Your task to perform on an android device: check google app version Image 0: 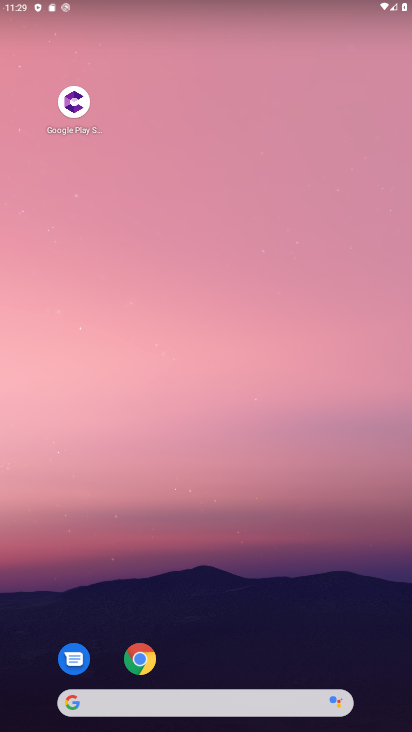
Step 0: drag from (208, 646) to (223, 32)
Your task to perform on an android device: check google app version Image 1: 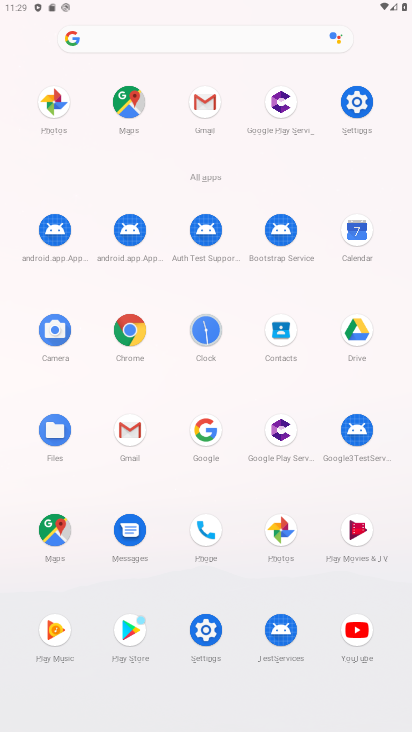
Step 1: click (73, 34)
Your task to perform on an android device: check google app version Image 2: 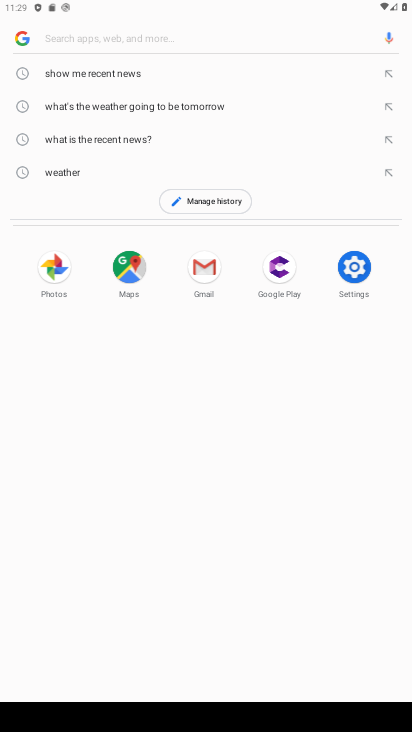
Step 2: click (22, 37)
Your task to perform on an android device: check google app version Image 3: 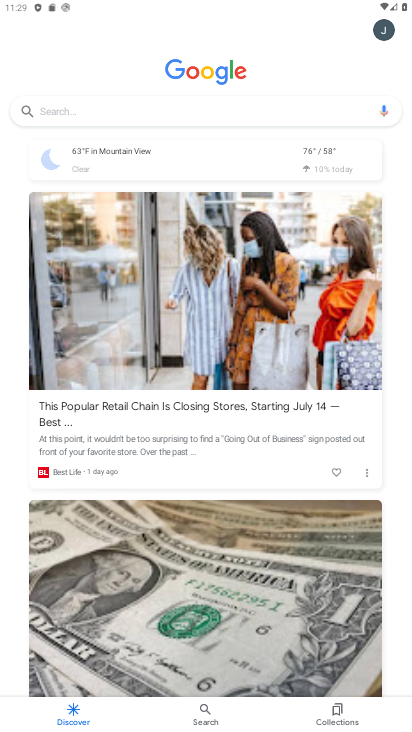
Step 3: click (383, 25)
Your task to perform on an android device: check google app version Image 4: 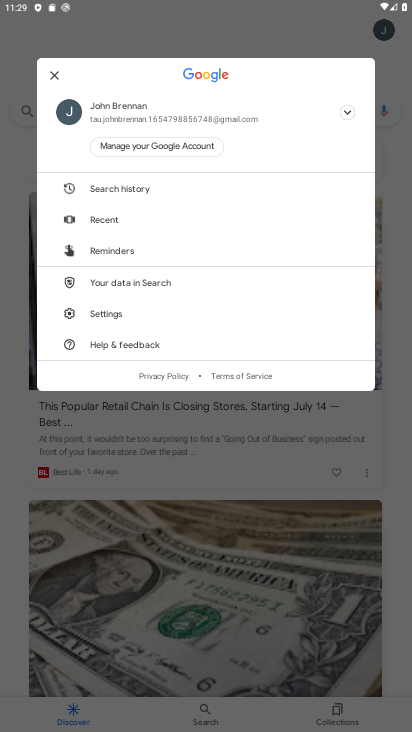
Step 4: click (108, 318)
Your task to perform on an android device: check google app version Image 5: 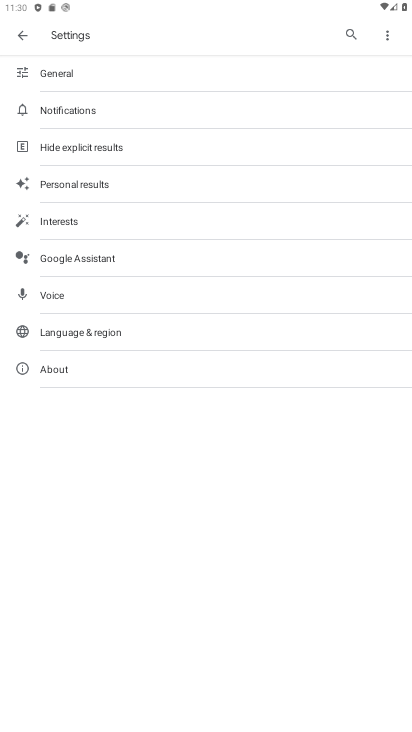
Step 5: click (88, 368)
Your task to perform on an android device: check google app version Image 6: 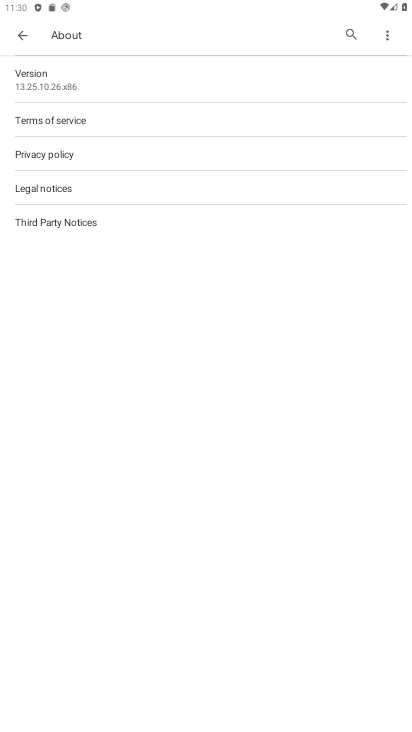
Step 6: task complete